Your task to perform on an android device: turn off picture-in-picture Image 0: 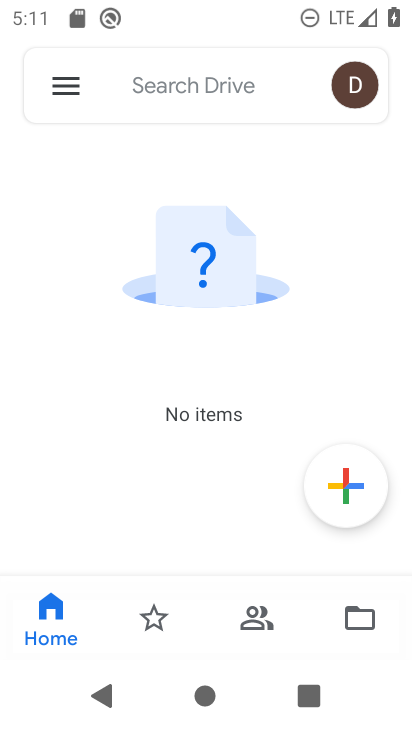
Step 0: press back button
Your task to perform on an android device: turn off picture-in-picture Image 1: 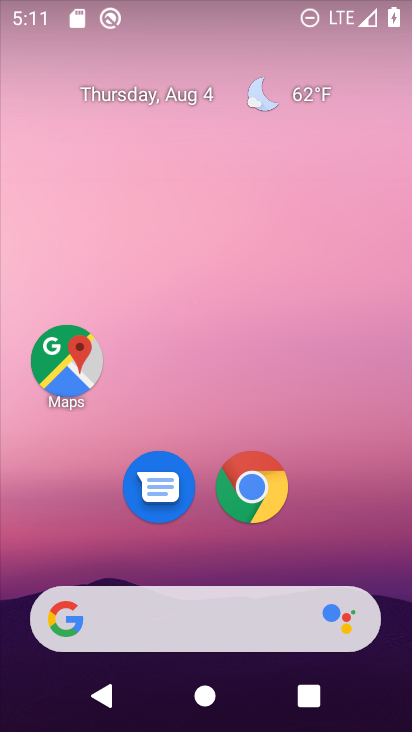
Step 1: drag from (127, 548) to (211, 0)
Your task to perform on an android device: turn off picture-in-picture Image 2: 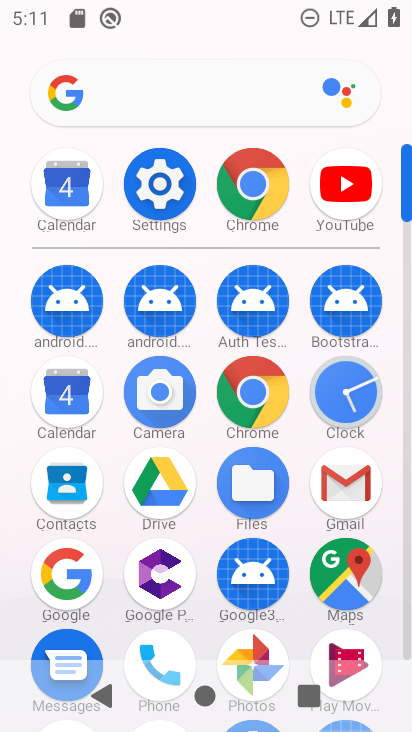
Step 2: click (161, 177)
Your task to perform on an android device: turn off picture-in-picture Image 3: 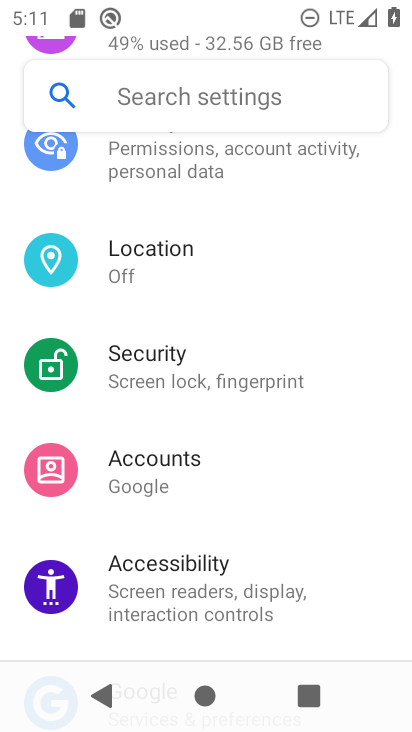
Step 3: drag from (198, 213) to (234, 675)
Your task to perform on an android device: turn off picture-in-picture Image 4: 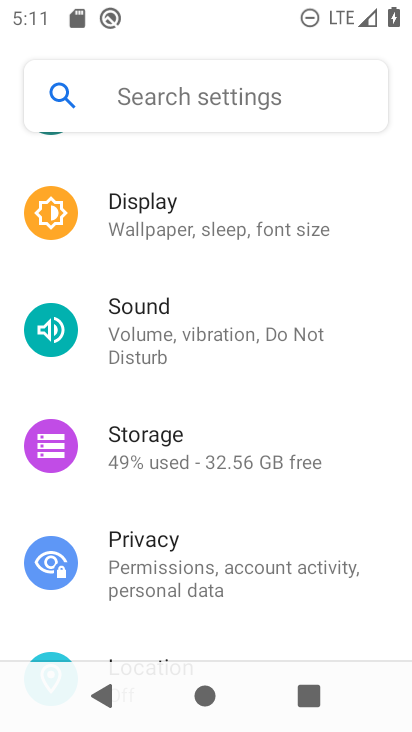
Step 4: drag from (245, 198) to (202, 720)
Your task to perform on an android device: turn off picture-in-picture Image 5: 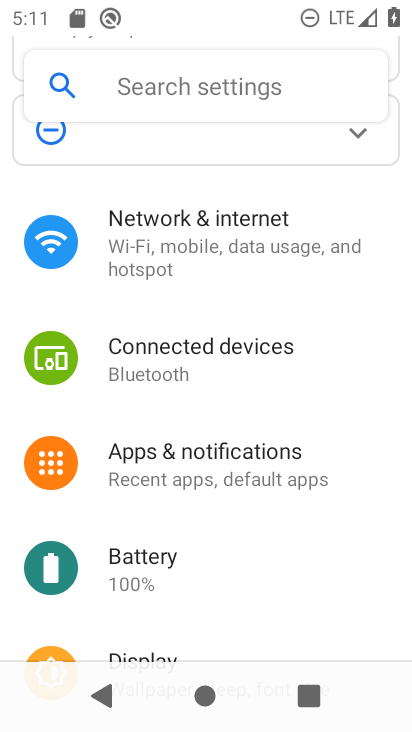
Step 5: click (208, 458)
Your task to perform on an android device: turn off picture-in-picture Image 6: 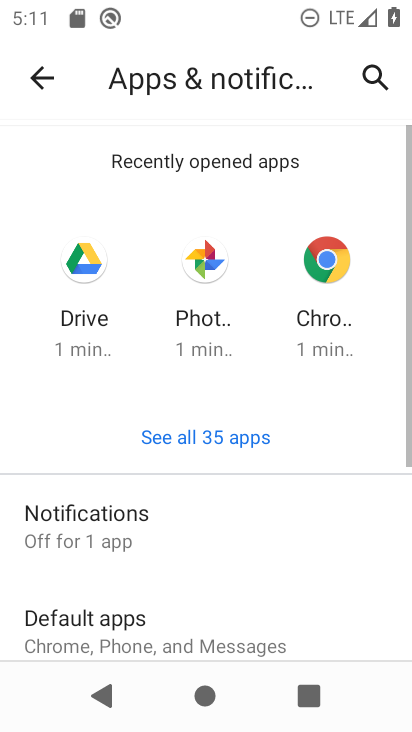
Step 6: click (159, 538)
Your task to perform on an android device: turn off picture-in-picture Image 7: 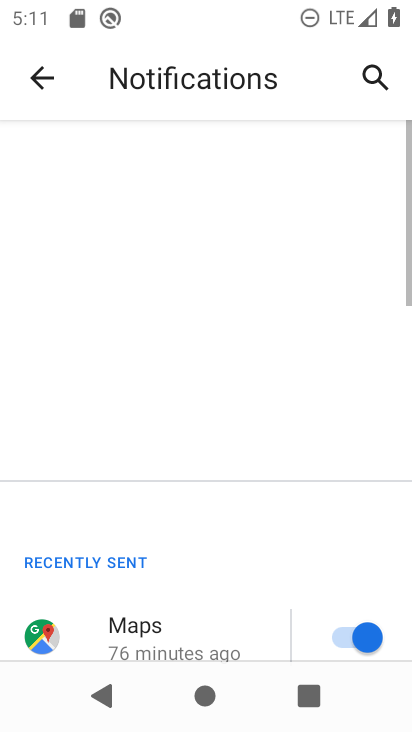
Step 7: drag from (104, 562) to (151, 59)
Your task to perform on an android device: turn off picture-in-picture Image 8: 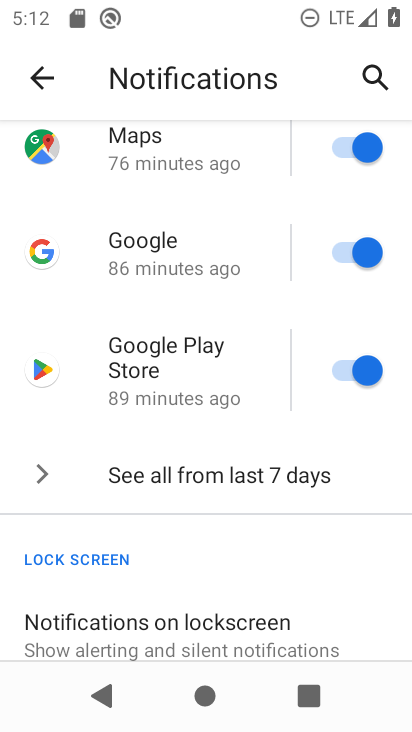
Step 8: drag from (173, 624) to (205, 43)
Your task to perform on an android device: turn off picture-in-picture Image 9: 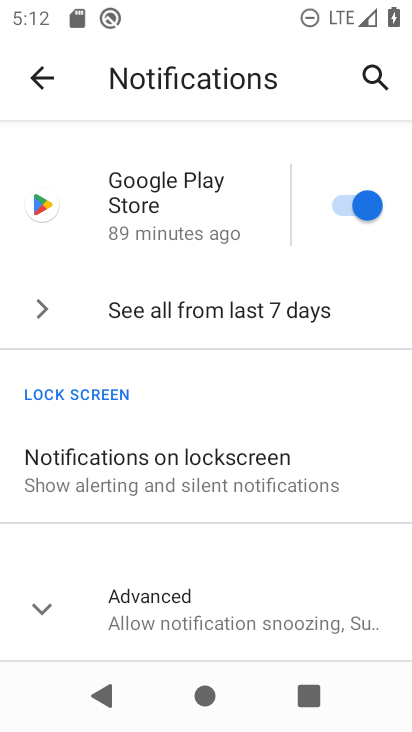
Step 9: click (199, 607)
Your task to perform on an android device: turn off picture-in-picture Image 10: 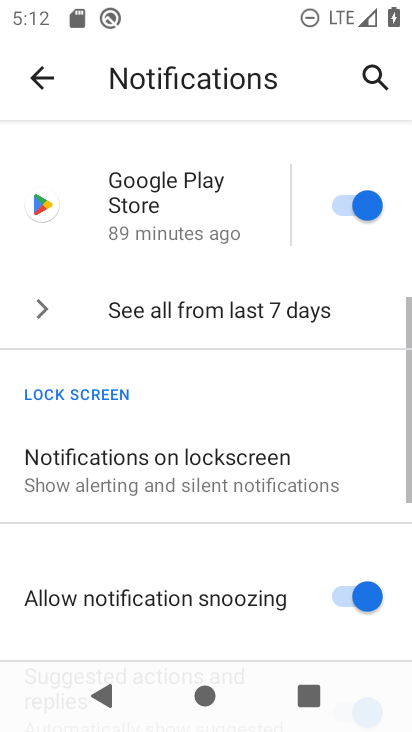
Step 10: drag from (196, 583) to (245, 38)
Your task to perform on an android device: turn off picture-in-picture Image 11: 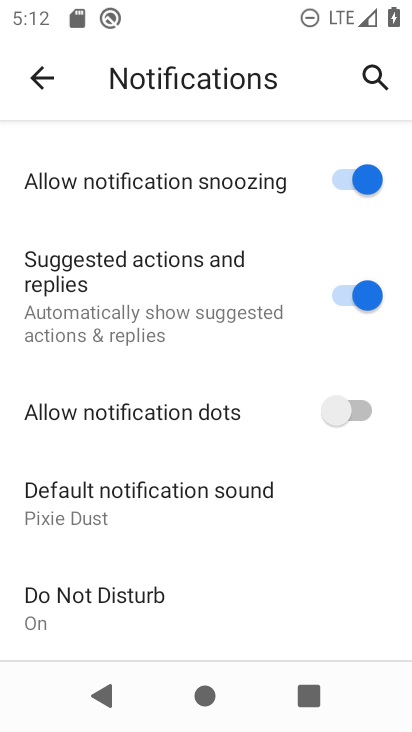
Step 11: drag from (214, 587) to (310, 22)
Your task to perform on an android device: turn off picture-in-picture Image 12: 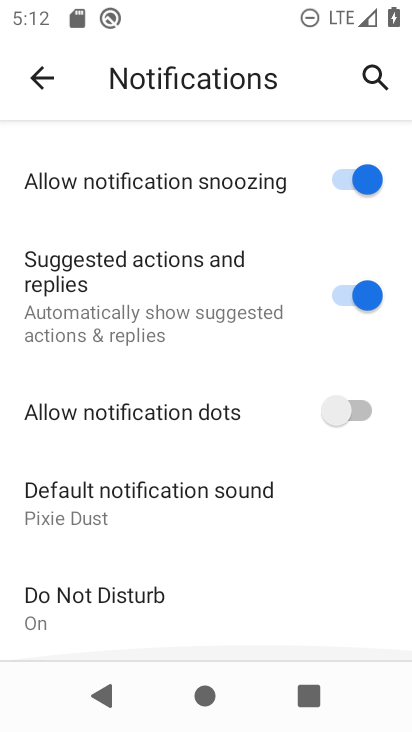
Step 12: drag from (265, 270) to (235, 619)
Your task to perform on an android device: turn off picture-in-picture Image 13: 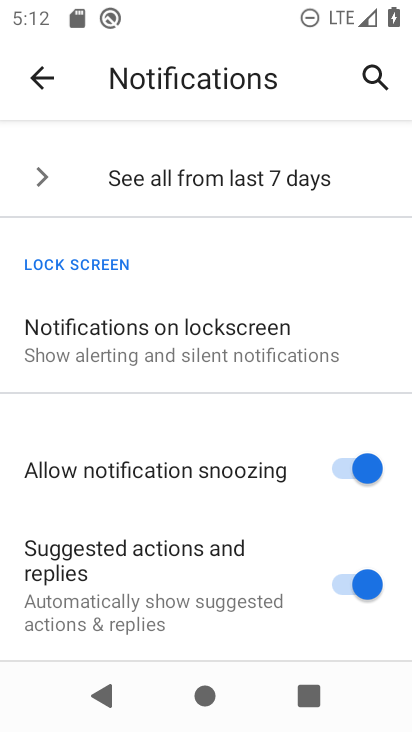
Step 13: drag from (184, 263) to (214, 661)
Your task to perform on an android device: turn off picture-in-picture Image 14: 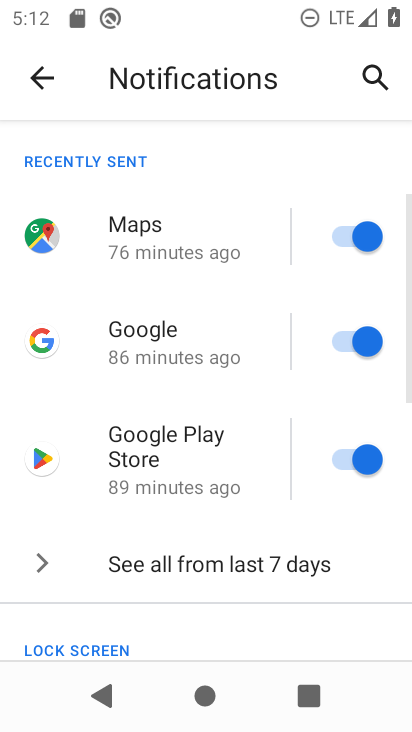
Step 14: click (34, 69)
Your task to perform on an android device: turn off picture-in-picture Image 15: 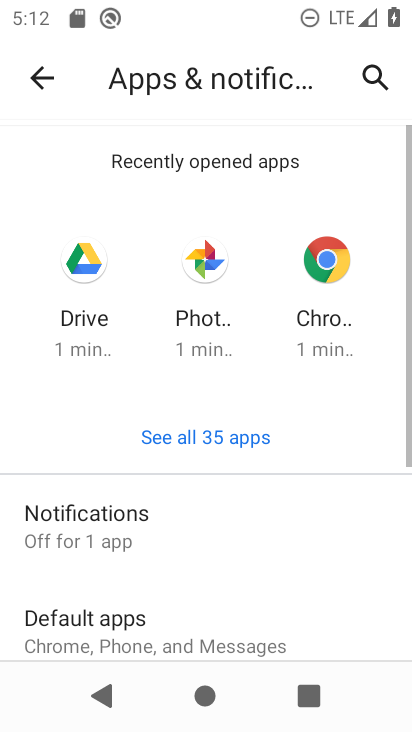
Step 15: drag from (184, 551) to (299, 3)
Your task to perform on an android device: turn off picture-in-picture Image 16: 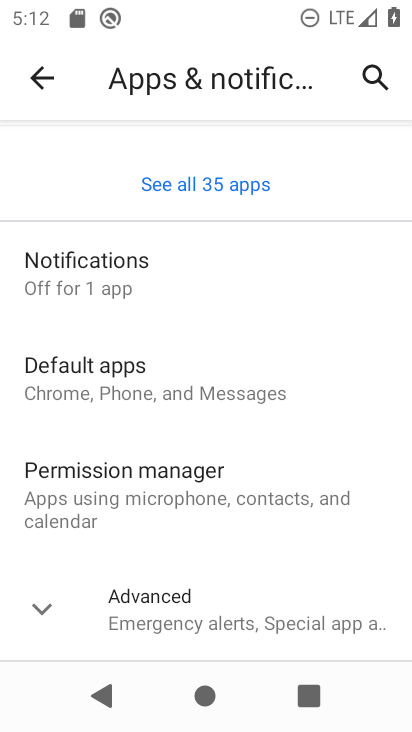
Step 16: click (223, 617)
Your task to perform on an android device: turn off picture-in-picture Image 17: 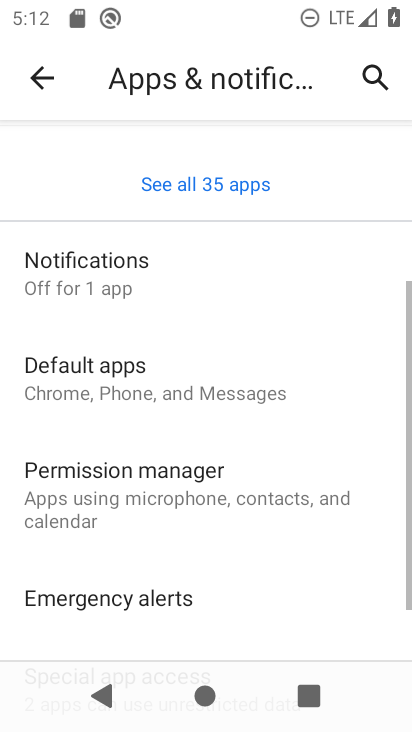
Step 17: drag from (226, 587) to (296, 1)
Your task to perform on an android device: turn off picture-in-picture Image 18: 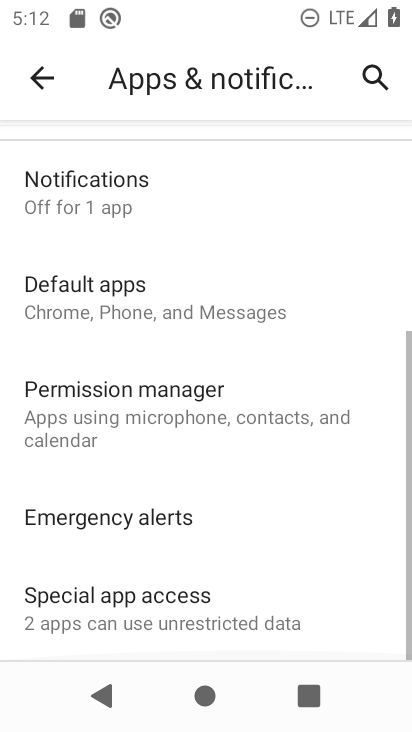
Step 18: click (107, 607)
Your task to perform on an android device: turn off picture-in-picture Image 19: 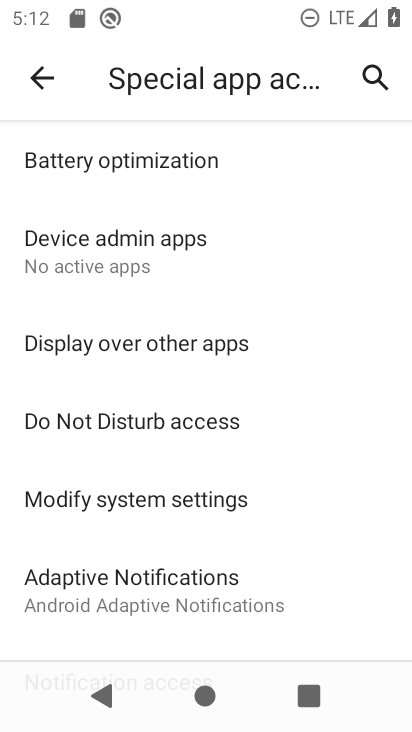
Step 19: drag from (168, 542) to (250, 14)
Your task to perform on an android device: turn off picture-in-picture Image 20: 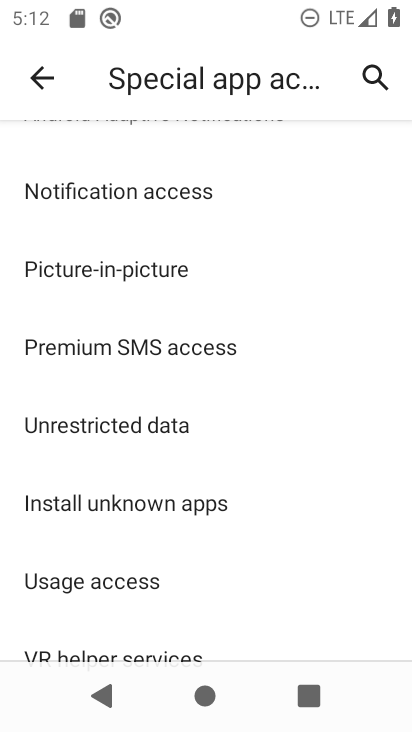
Step 20: click (86, 267)
Your task to perform on an android device: turn off picture-in-picture Image 21: 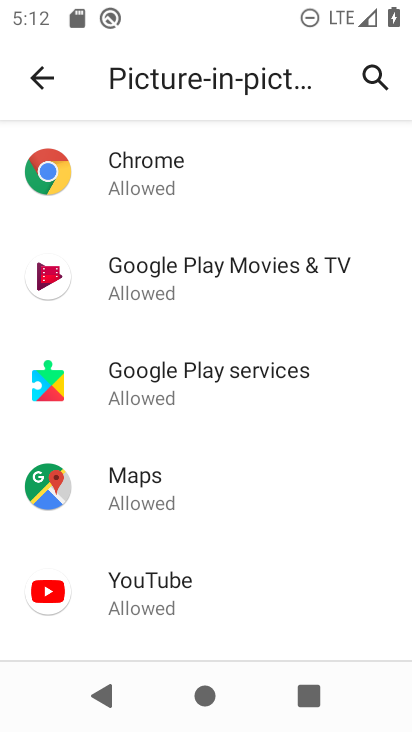
Step 21: click (136, 175)
Your task to perform on an android device: turn off picture-in-picture Image 22: 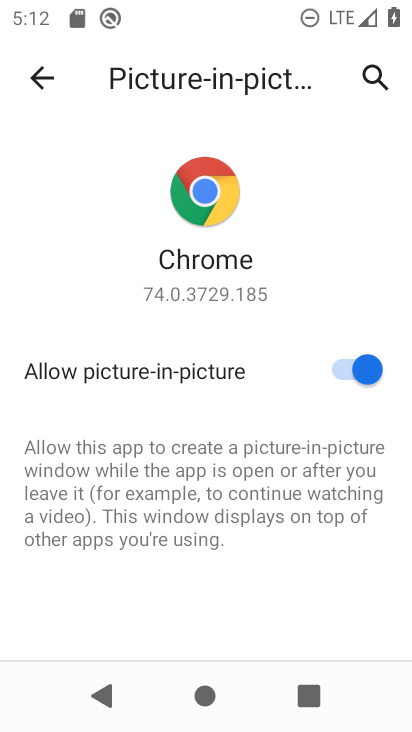
Step 22: click (345, 367)
Your task to perform on an android device: turn off picture-in-picture Image 23: 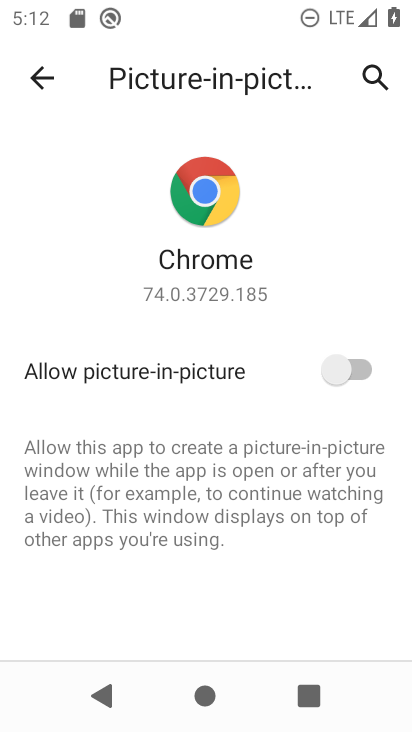
Step 23: task complete